Your task to perform on an android device: Open sound settings Image 0: 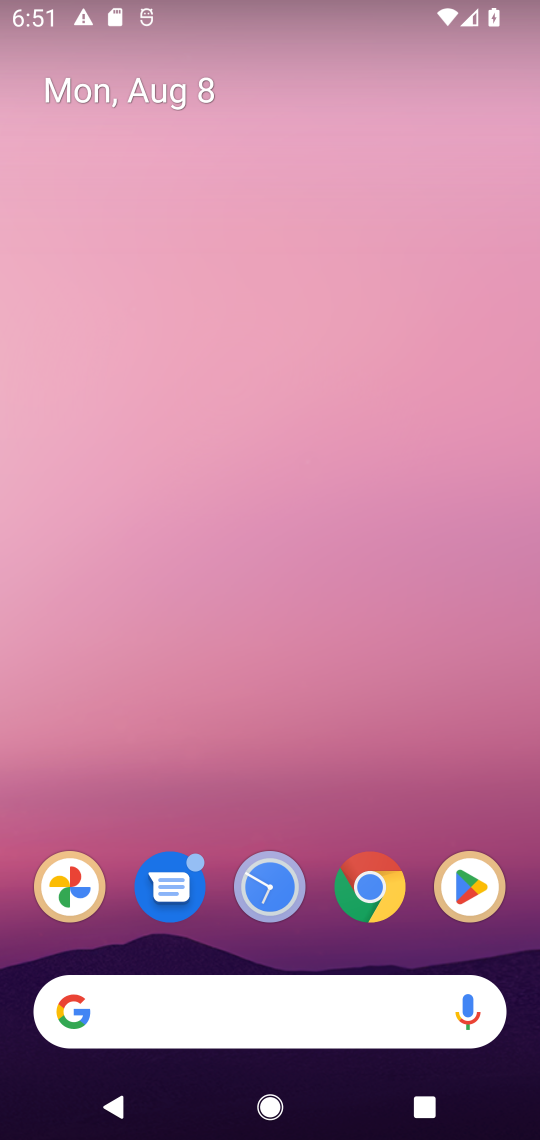
Step 0: drag from (190, 1001) to (272, 332)
Your task to perform on an android device: Open sound settings Image 1: 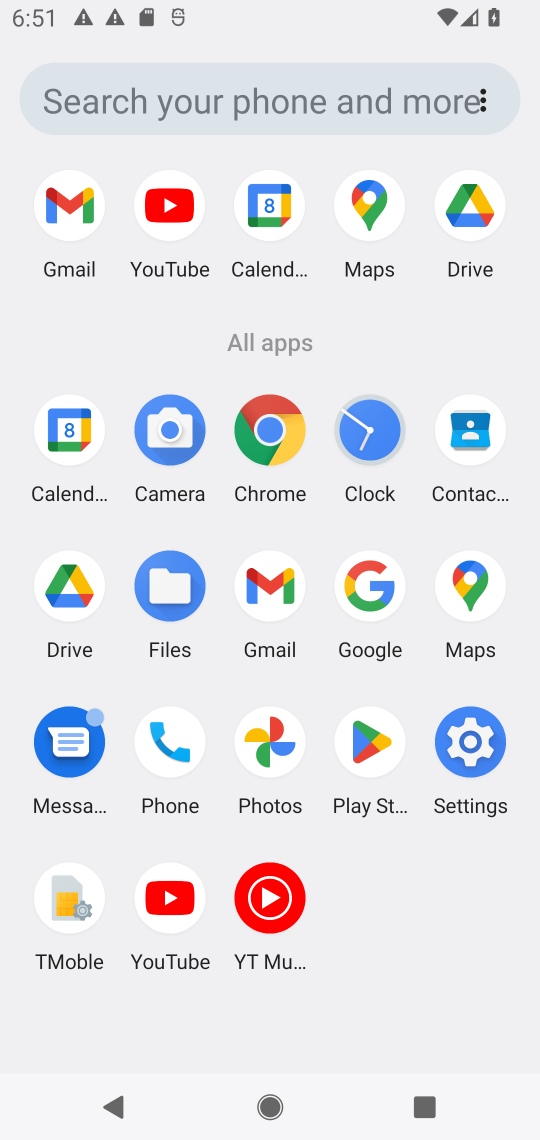
Step 1: click (455, 728)
Your task to perform on an android device: Open sound settings Image 2: 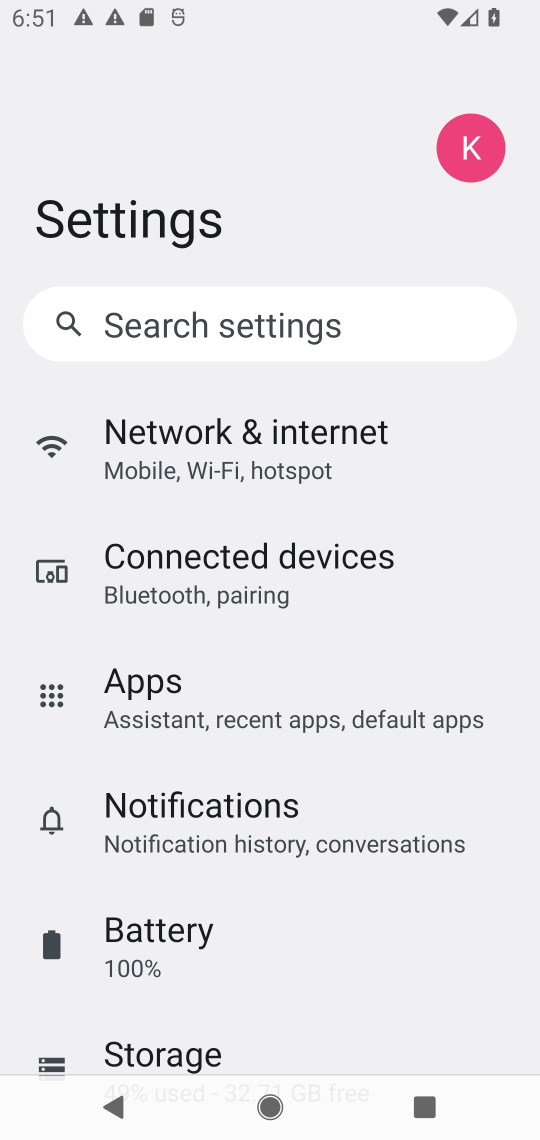
Step 2: drag from (407, 900) to (406, 84)
Your task to perform on an android device: Open sound settings Image 3: 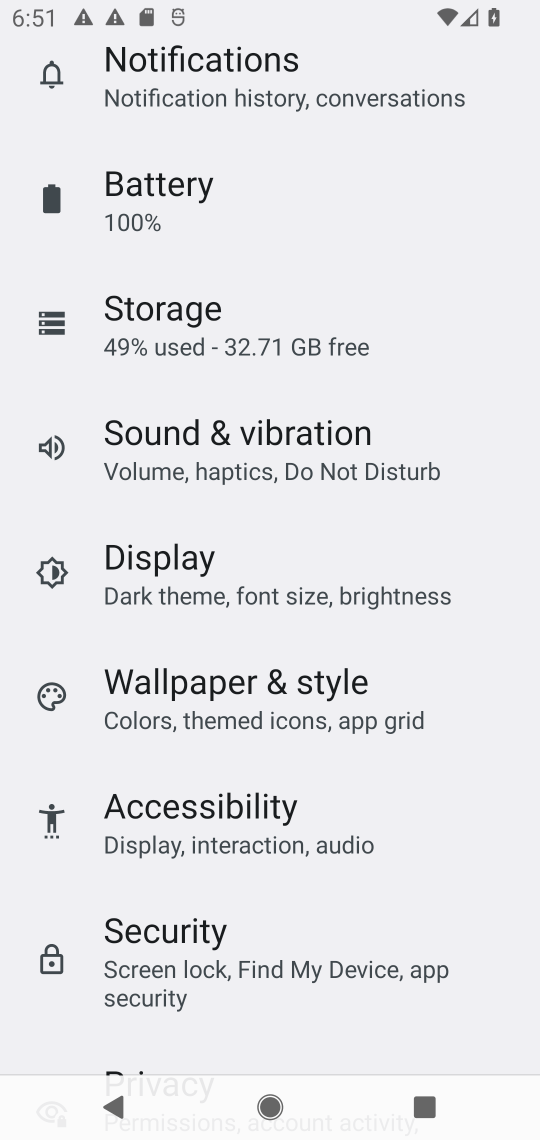
Step 3: click (253, 453)
Your task to perform on an android device: Open sound settings Image 4: 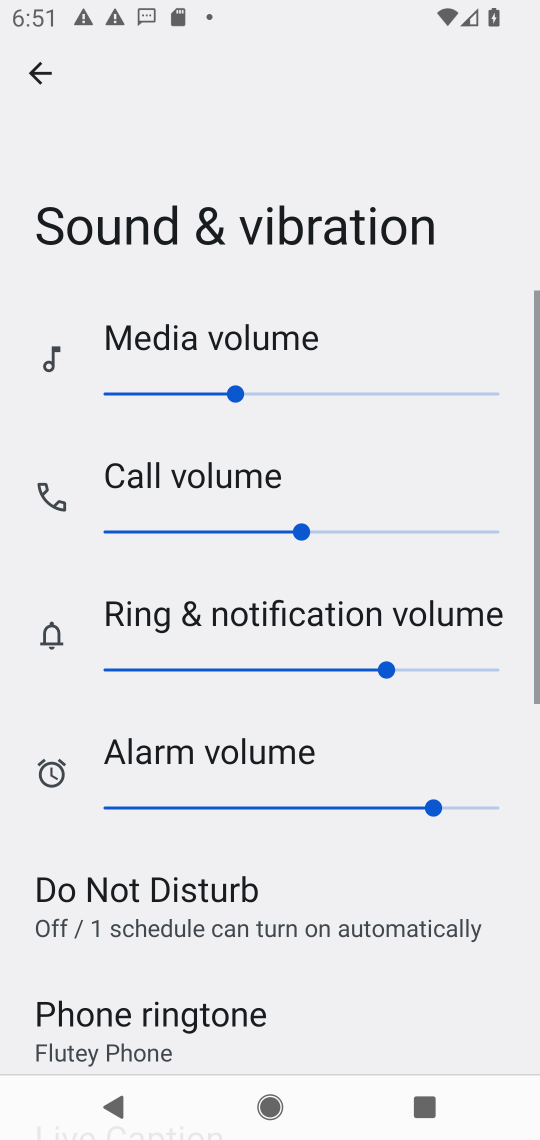
Step 4: task complete